Your task to perform on an android device: Open Google Image 0: 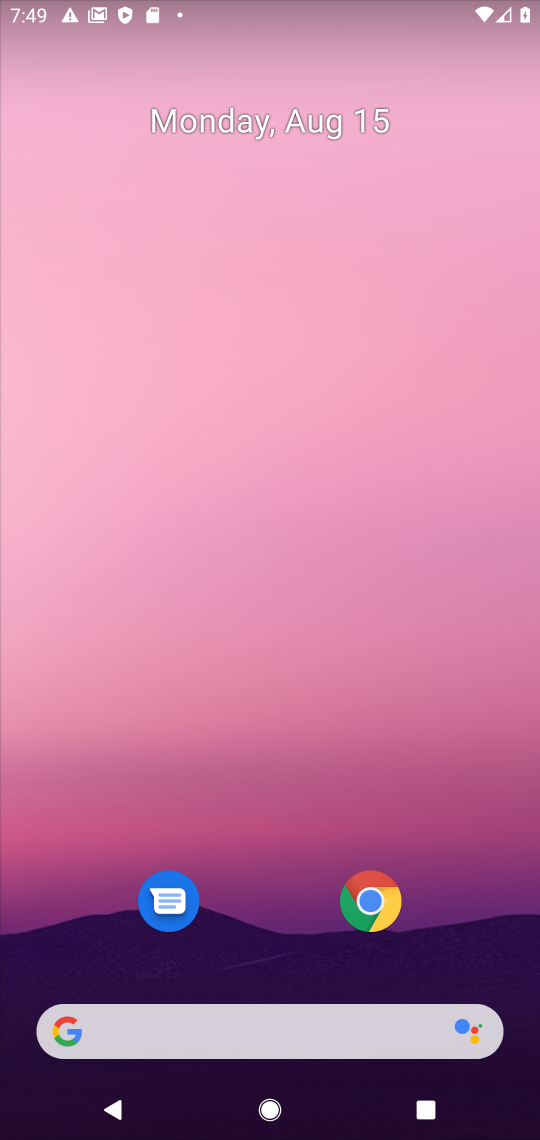
Step 0: click (74, 1031)
Your task to perform on an android device: Open Google Image 1: 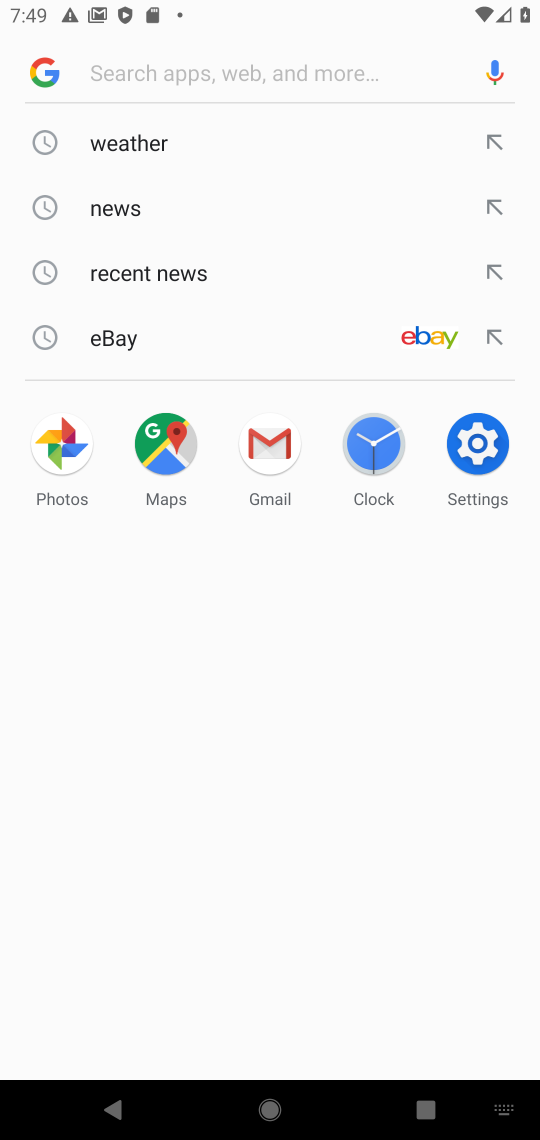
Step 1: click (44, 69)
Your task to perform on an android device: Open Google Image 2: 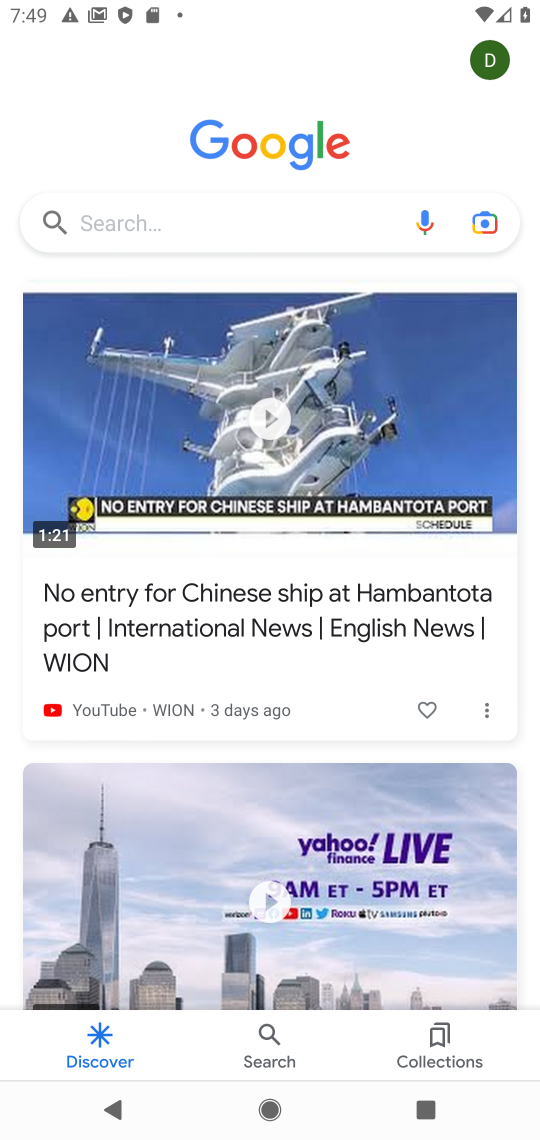
Step 2: task complete